Your task to perform on an android device: Open Amazon Image 0: 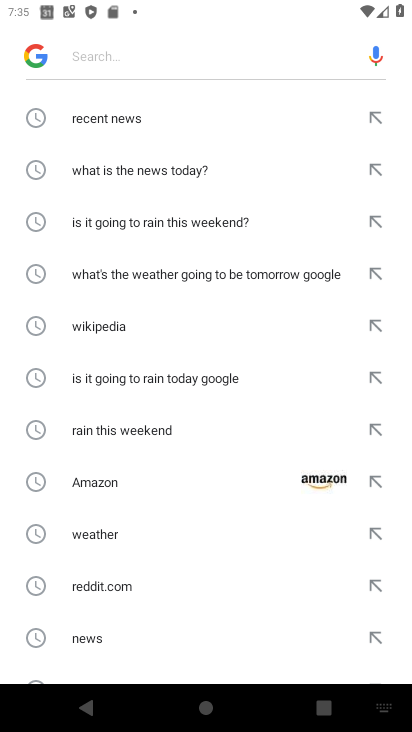
Step 0: press back button
Your task to perform on an android device: Open Amazon Image 1: 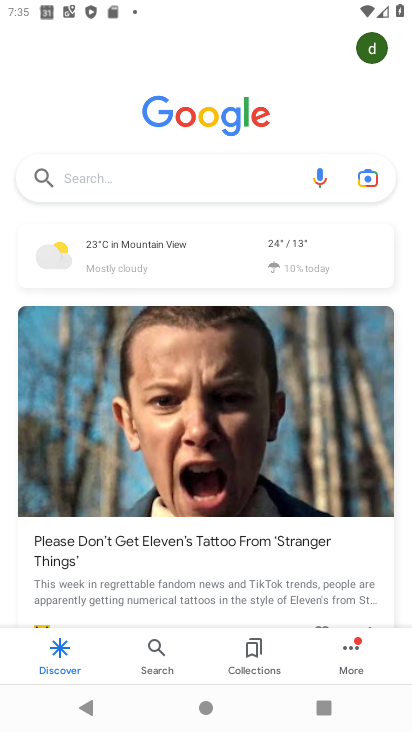
Step 1: click (129, 185)
Your task to perform on an android device: Open Amazon Image 2: 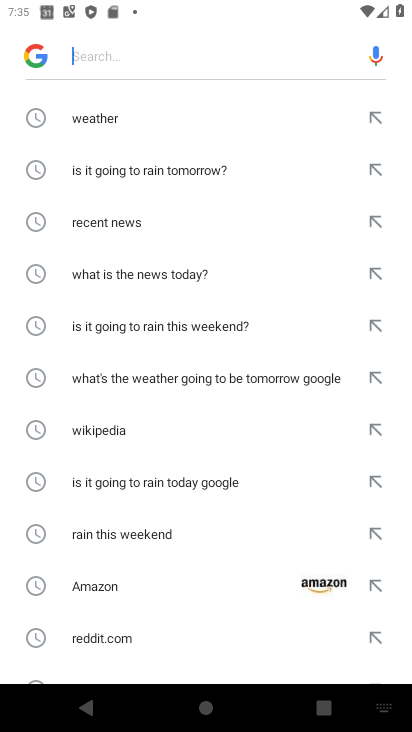
Step 2: click (233, 596)
Your task to perform on an android device: Open Amazon Image 3: 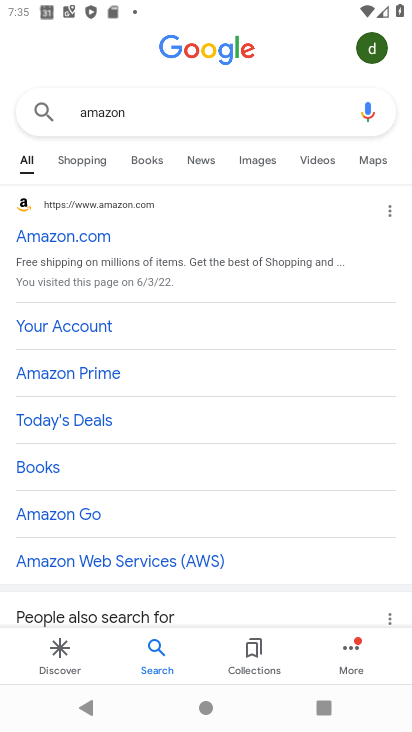
Step 3: task complete